Your task to perform on an android device: move an email to a new category in the gmail app Image 0: 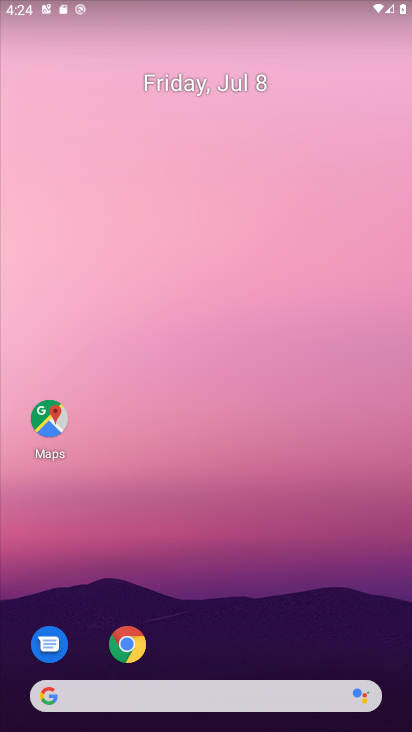
Step 0: drag from (381, 640) to (332, 94)
Your task to perform on an android device: move an email to a new category in the gmail app Image 1: 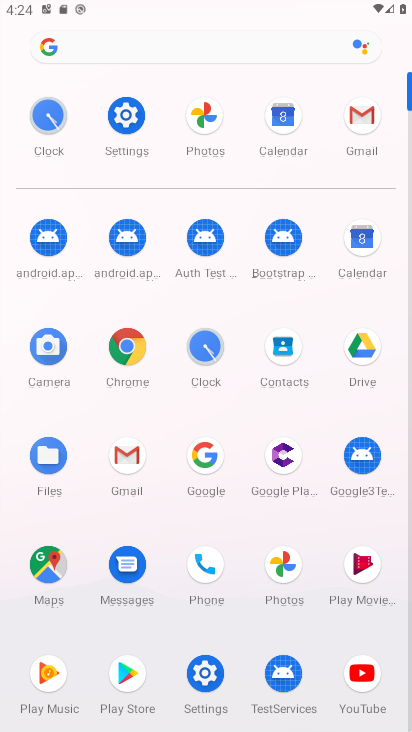
Step 1: click (127, 456)
Your task to perform on an android device: move an email to a new category in the gmail app Image 2: 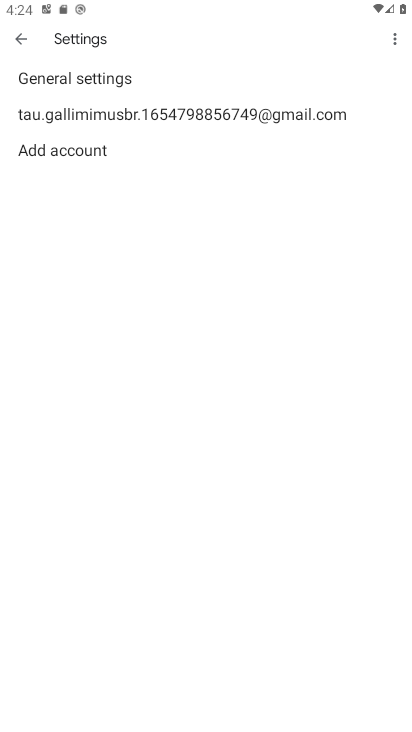
Step 2: press back button
Your task to perform on an android device: move an email to a new category in the gmail app Image 3: 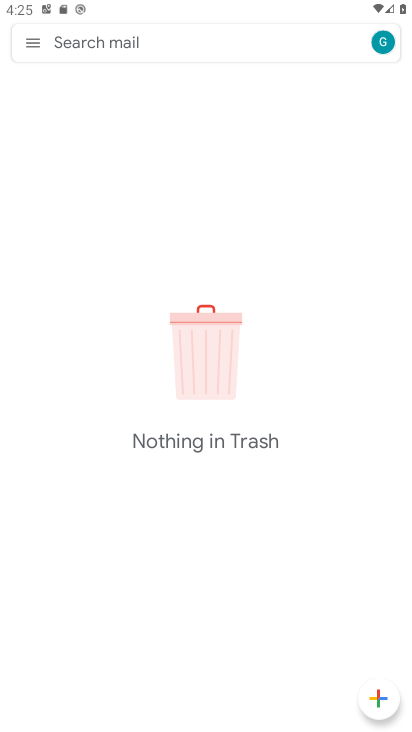
Step 3: click (29, 40)
Your task to perform on an android device: move an email to a new category in the gmail app Image 4: 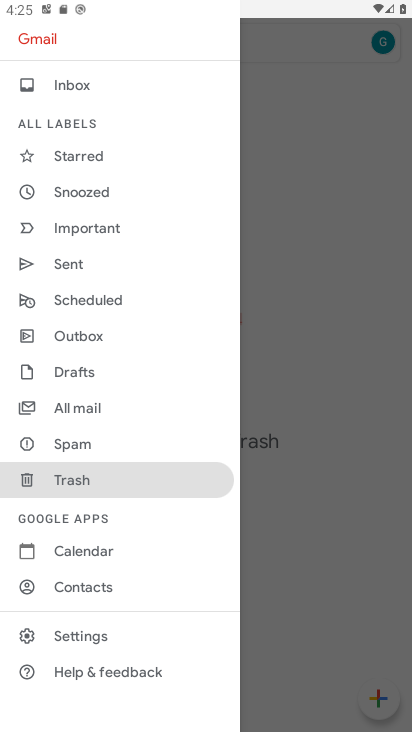
Step 4: click (83, 410)
Your task to perform on an android device: move an email to a new category in the gmail app Image 5: 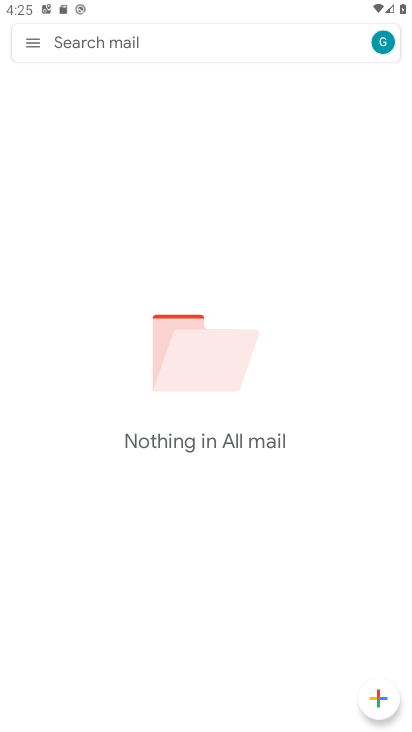
Step 5: task complete